Your task to perform on an android device: add a contact Image 0: 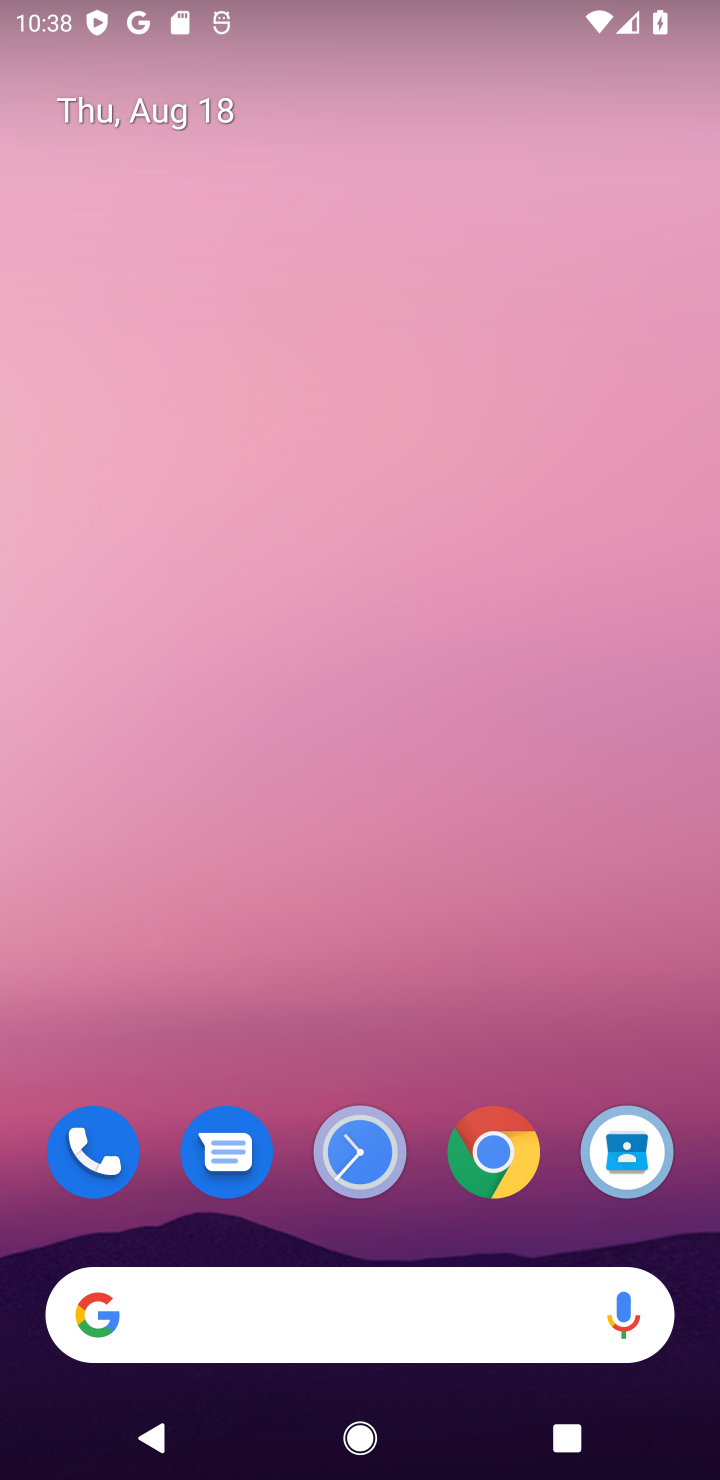
Step 0: drag from (425, 1034) to (561, 3)
Your task to perform on an android device: add a contact Image 1: 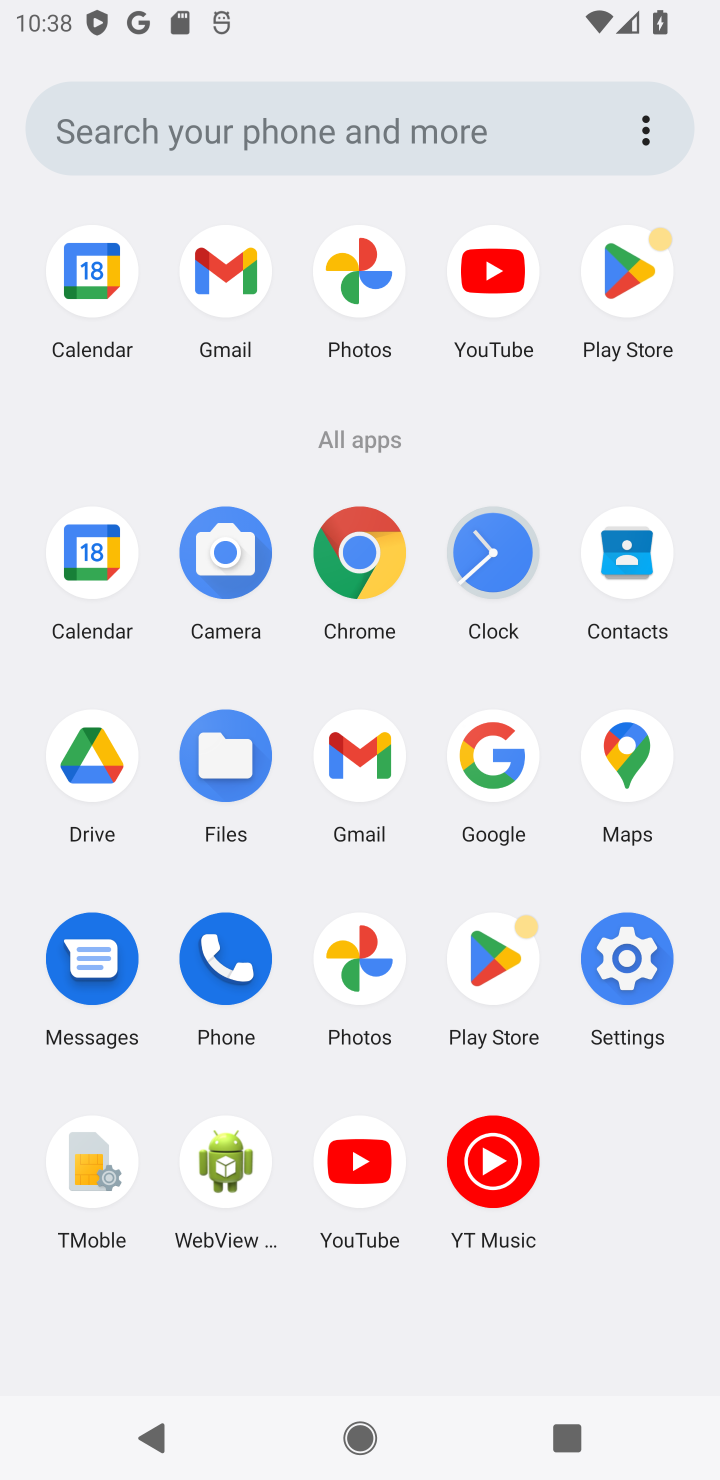
Step 1: click (625, 556)
Your task to perform on an android device: add a contact Image 2: 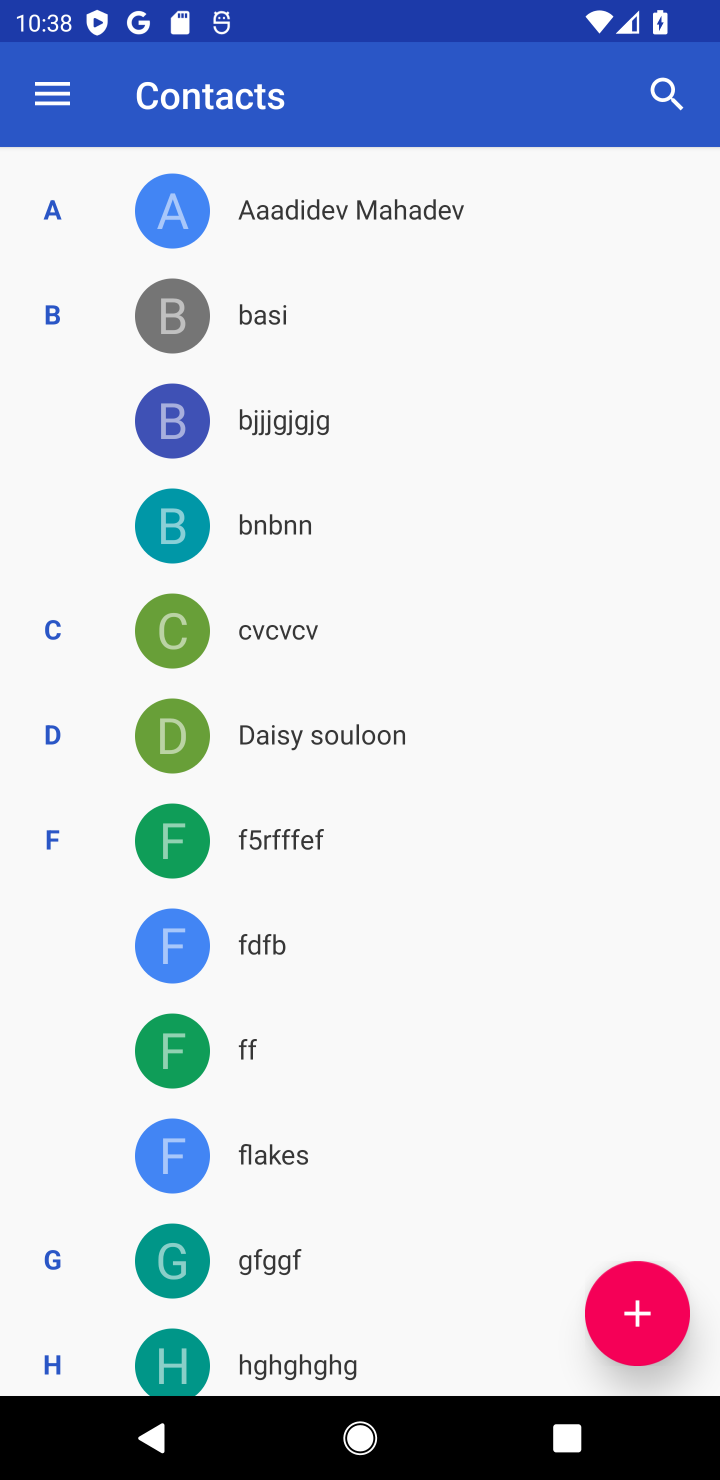
Step 2: click (636, 1312)
Your task to perform on an android device: add a contact Image 3: 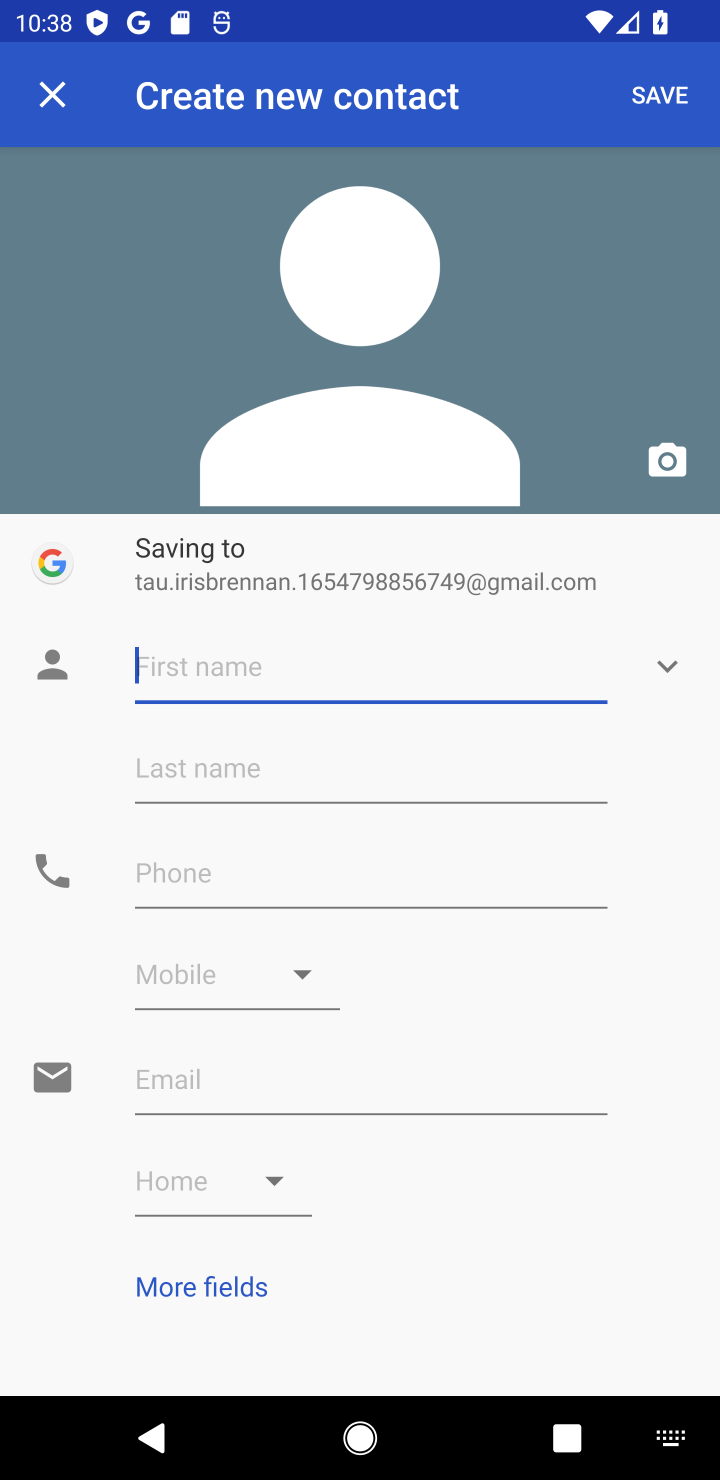
Step 3: type "Abba Jaan"
Your task to perform on an android device: add a contact Image 4: 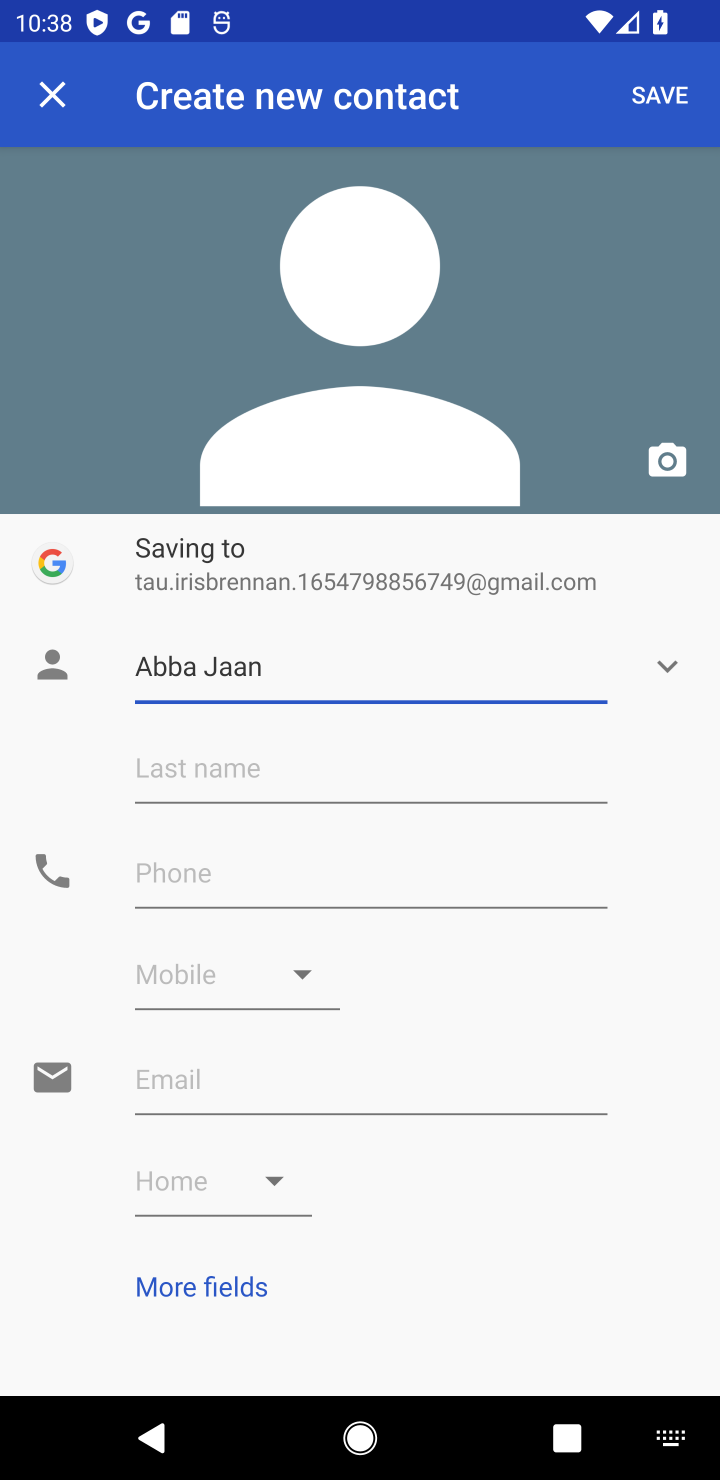
Step 4: click (480, 887)
Your task to perform on an android device: add a contact Image 5: 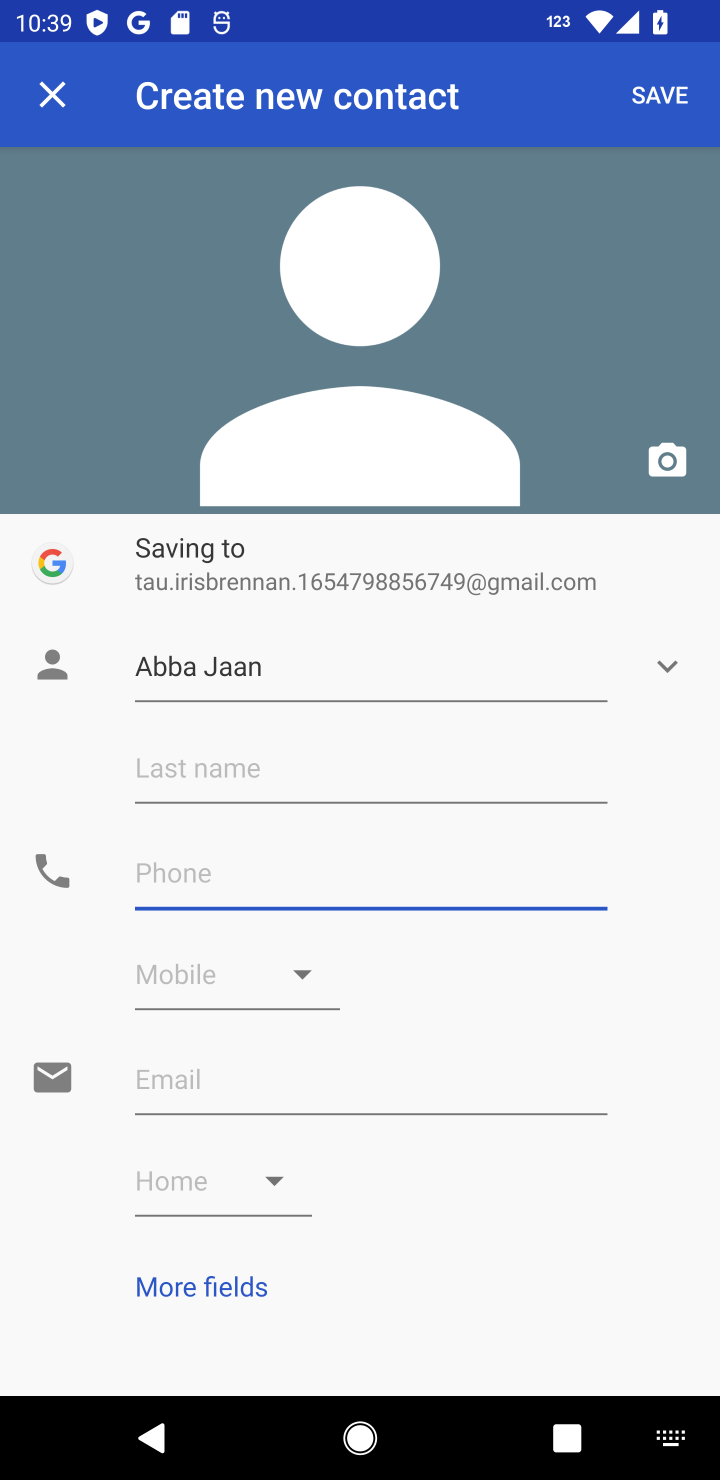
Step 5: type "+92 786786786"
Your task to perform on an android device: add a contact Image 6: 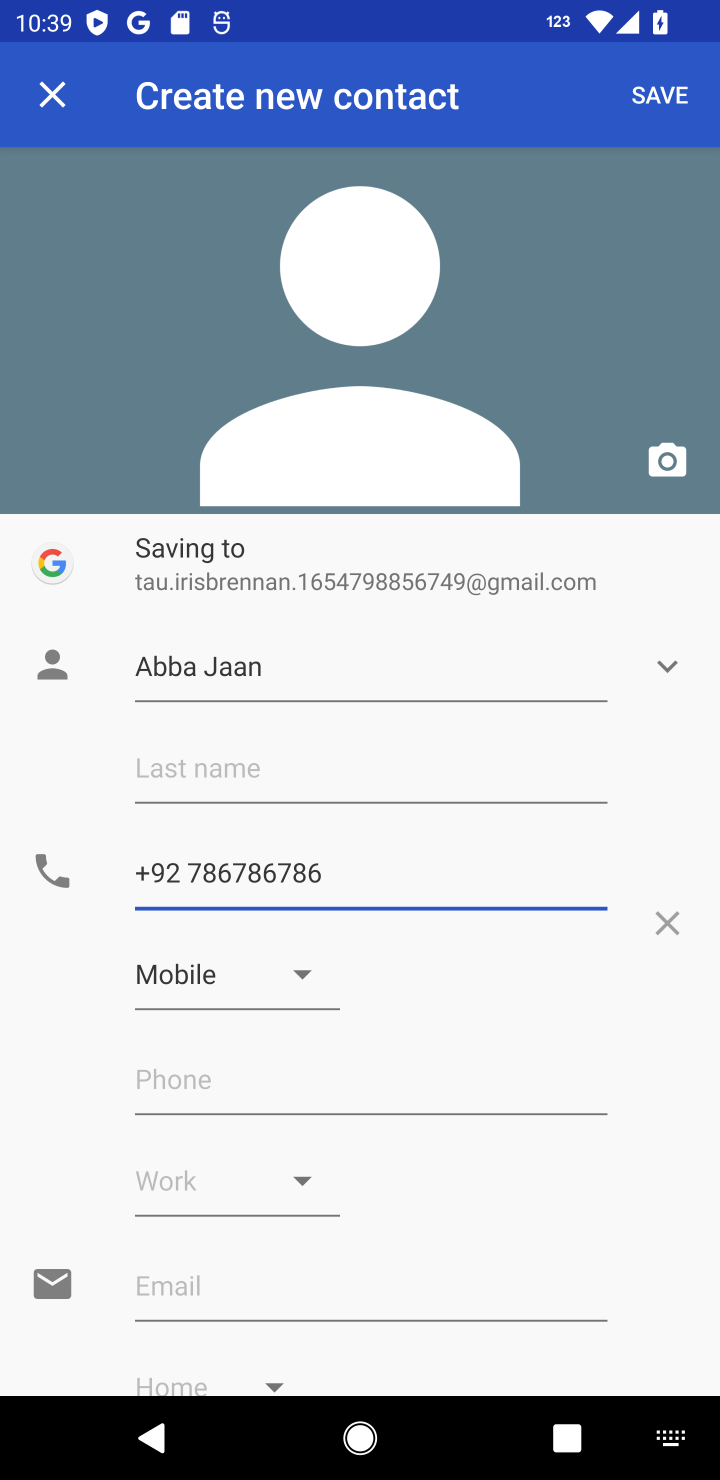
Step 6: click (665, 100)
Your task to perform on an android device: add a contact Image 7: 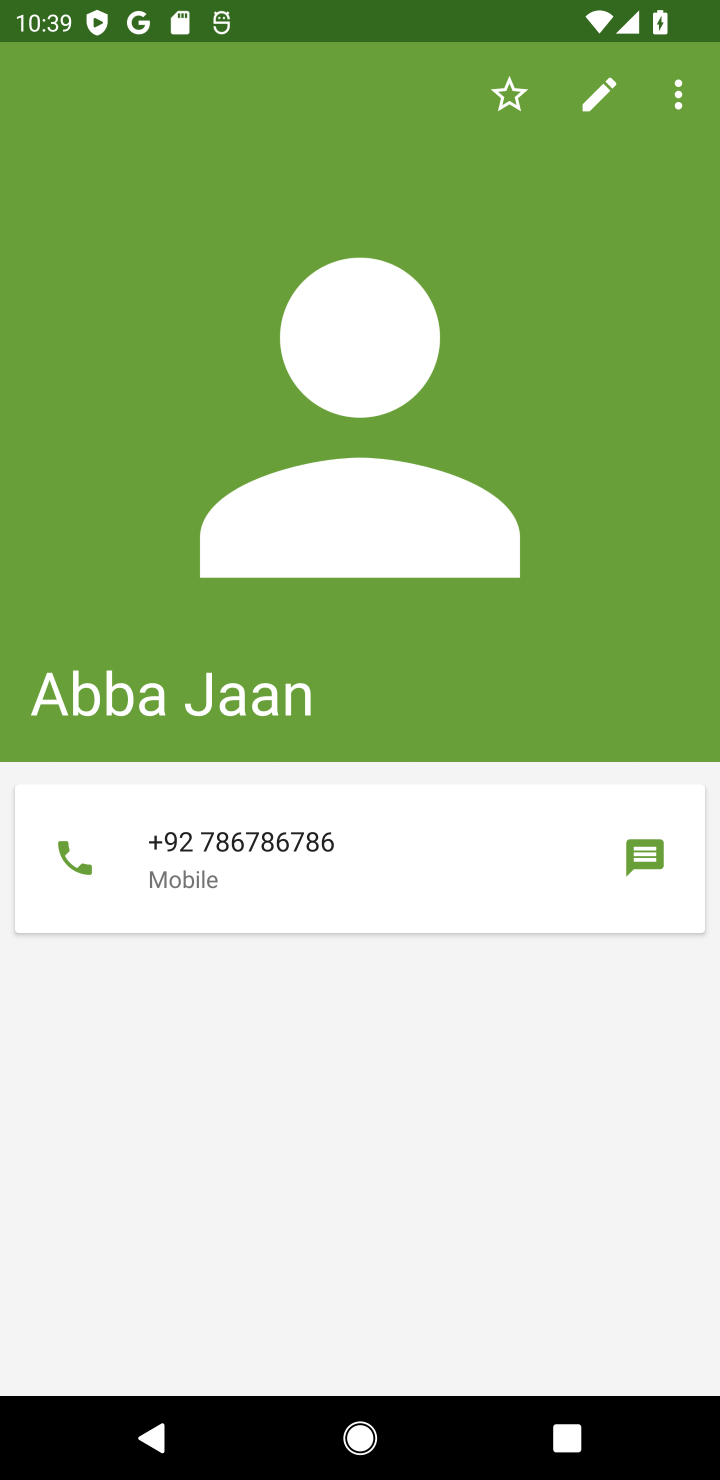
Step 7: task complete